Your task to perform on an android device: open app "The Home Depot" (install if not already installed) Image 0: 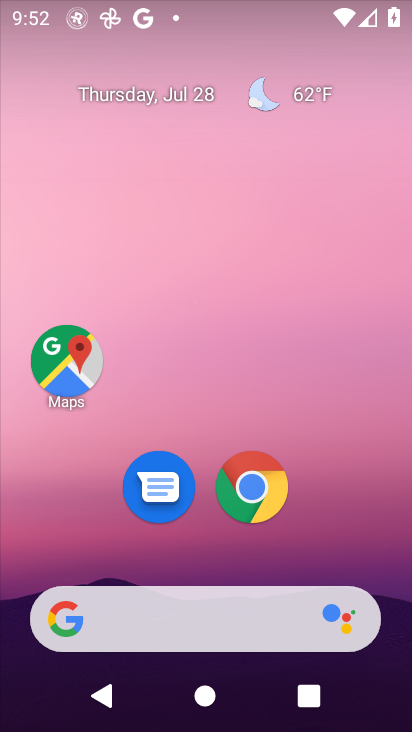
Step 0: press back button
Your task to perform on an android device: open app "The Home Depot" (install if not already installed) Image 1: 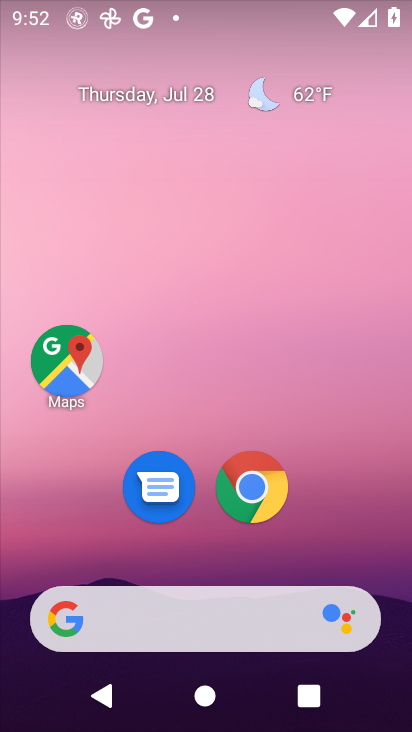
Step 1: press back button
Your task to perform on an android device: open app "The Home Depot" (install if not already installed) Image 2: 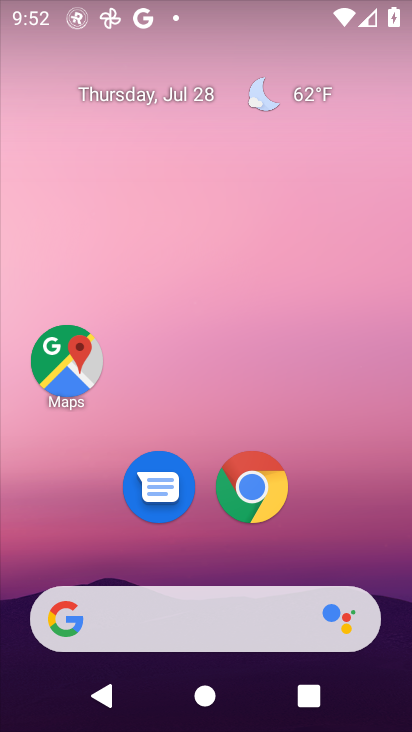
Step 2: drag from (335, 581) to (250, 252)
Your task to perform on an android device: open app "The Home Depot" (install if not already installed) Image 3: 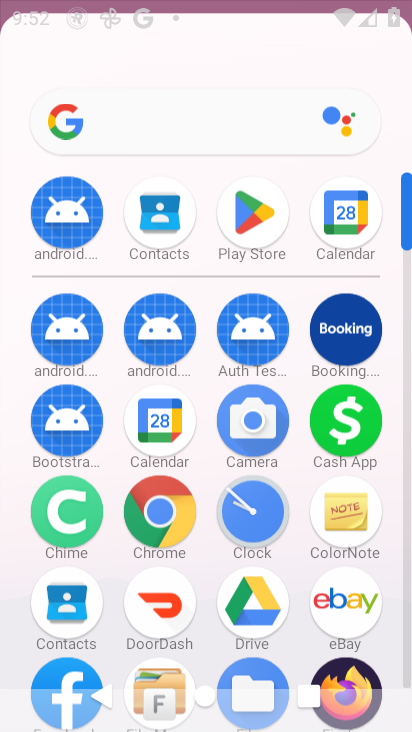
Step 3: drag from (232, 395) to (198, 133)
Your task to perform on an android device: open app "The Home Depot" (install if not already installed) Image 4: 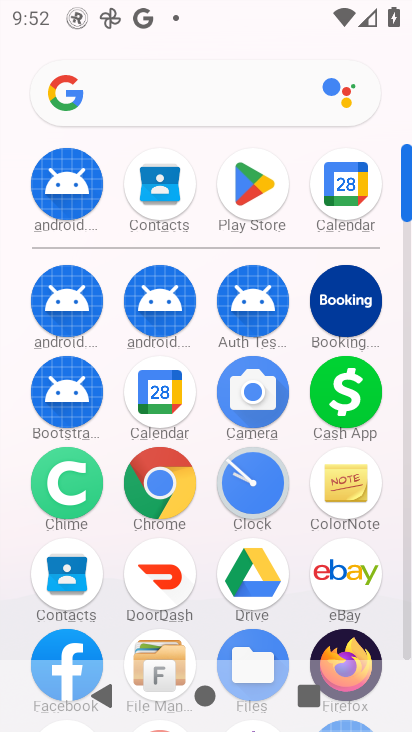
Step 4: click (249, 191)
Your task to perform on an android device: open app "The Home Depot" (install if not already installed) Image 5: 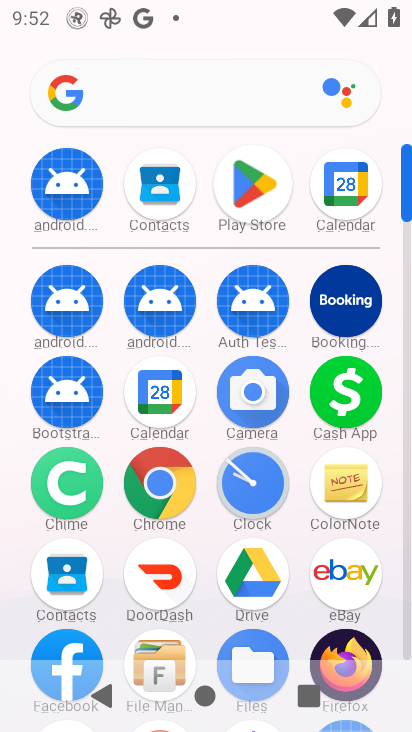
Step 5: click (249, 191)
Your task to perform on an android device: open app "The Home Depot" (install if not already installed) Image 6: 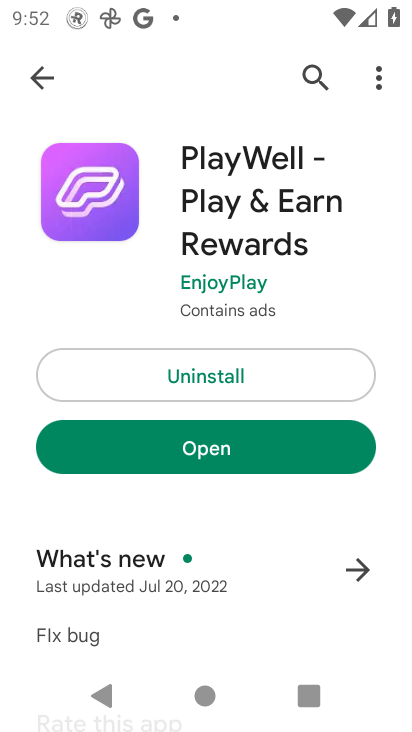
Step 6: click (41, 77)
Your task to perform on an android device: open app "The Home Depot" (install if not already installed) Image 7: 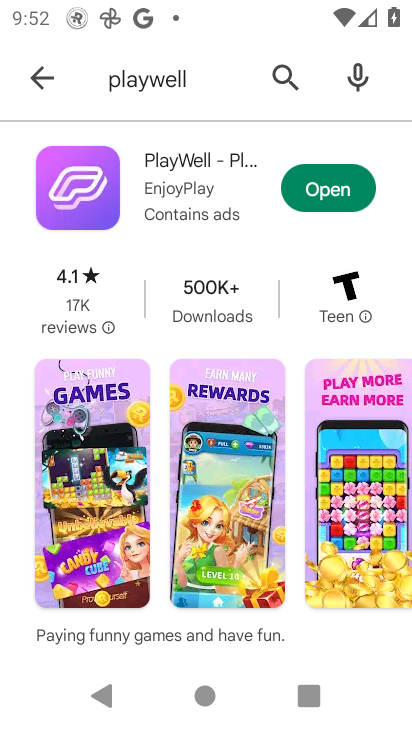
Step 7: click (47, 69)
Your task to perform on an android device: open app "The Home Depot" (install if not already installed) Image 8: 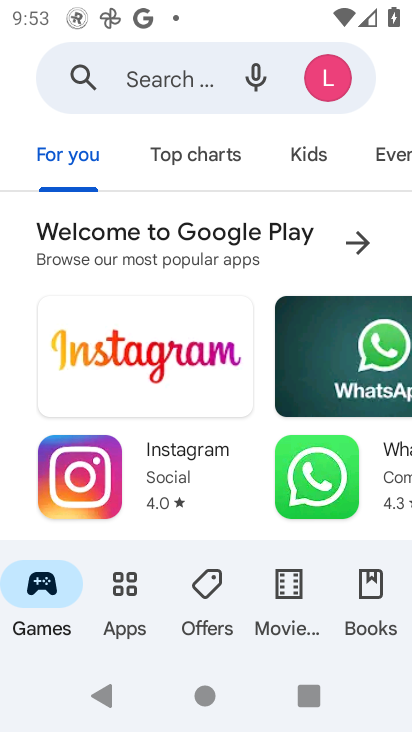
Step 8: click (139, 71)
Your task to perform on an android device: open app "The Home Depot" (install if not already installed) Image 9: 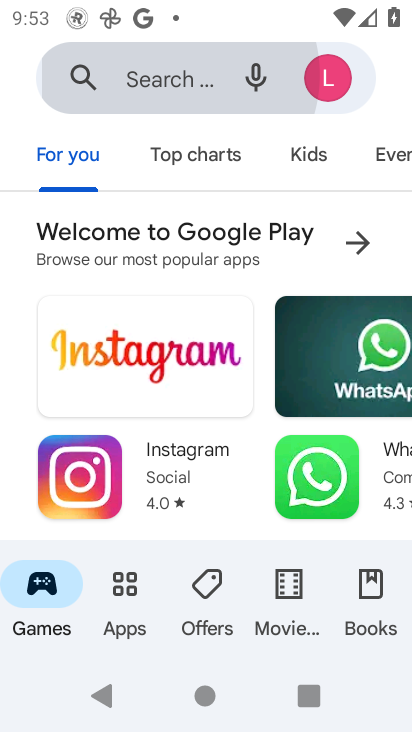
Step 9: click (136, 76)
Your task to perform on an android device: open app "The Home Depot" (install if not already installed) Image 10: 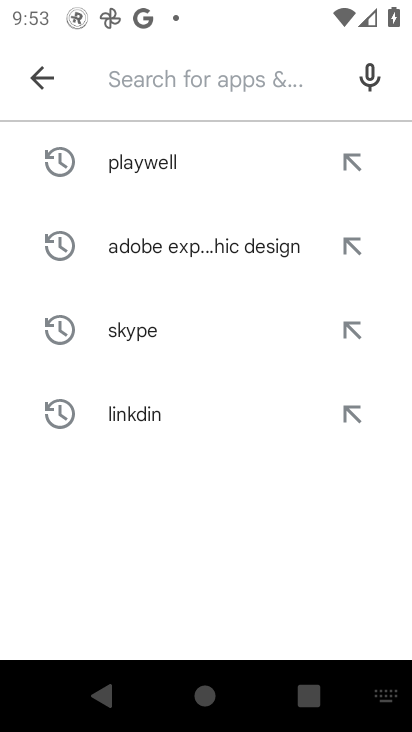
Step 10: type "Open app The Home Depot"
Your task to perform on an android device: open app "The Home Depot" (install if not already installed) Image 11: 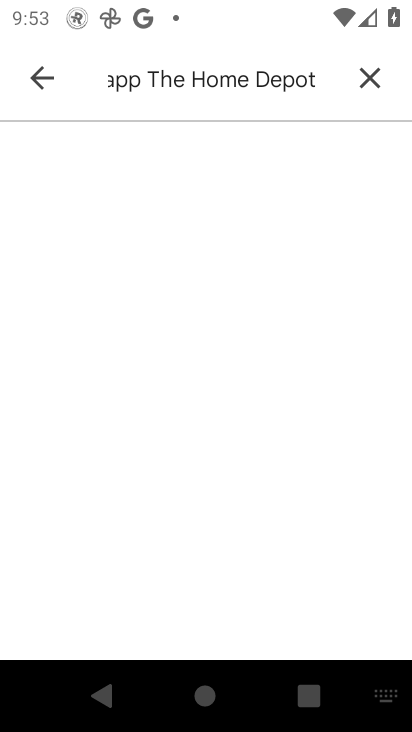
Step 11: click (381, 82)
Your task to perform on an android device: open app "The Home Depot" (install if not already installed) Image 12: 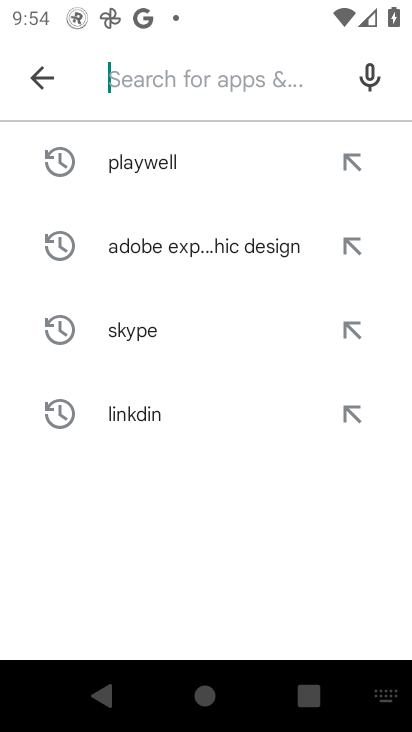
Step 12: type ""The Home Depot""
Your task to perform on an android device: open app "The Home Depot" (install if not already installed) Image 13: 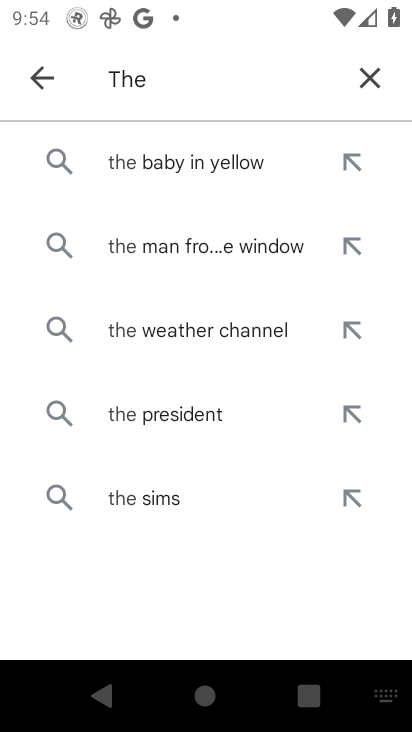
Step 13: type "home depot"
Your task to perform on an android device: open app "The Home Depot" (install if not already installed) Image 14: 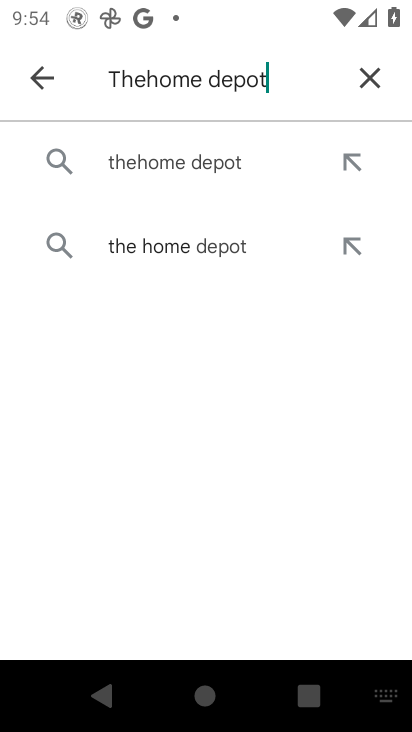
Step 14: click (220, 152)
Your task to perform on an android device: open app "The Home Depot" (install if not already installed) Image 15: 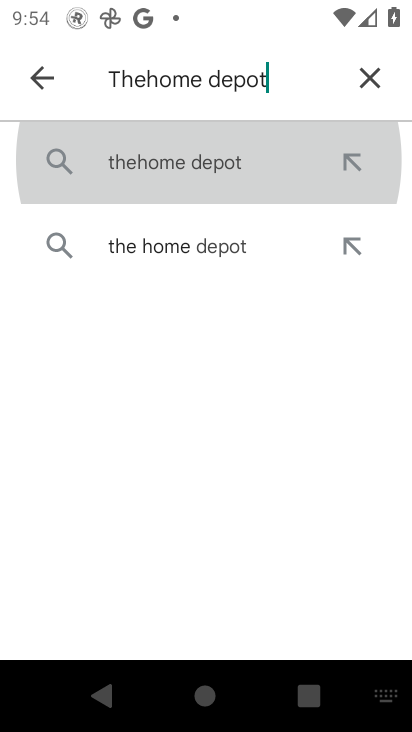
Step 15: click (223, 162)
Your task to perform on an android device: open app "The Home Depot" (install if not already installed) Image 16: 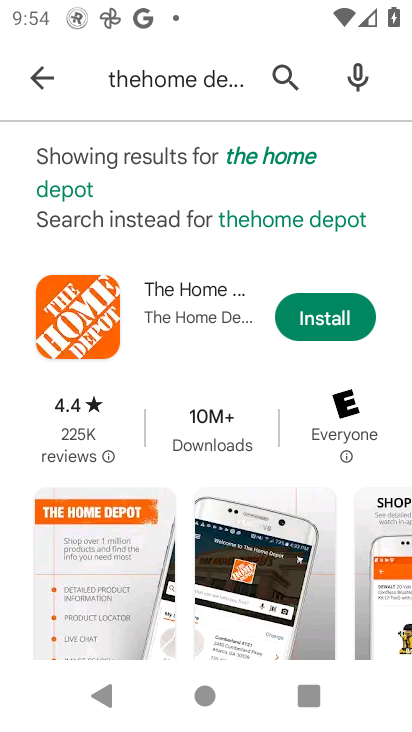
Step 16: click (331, 307)
Your task to perform on an android device: open app "The Home Depot" (install if not already installed) Image 17: 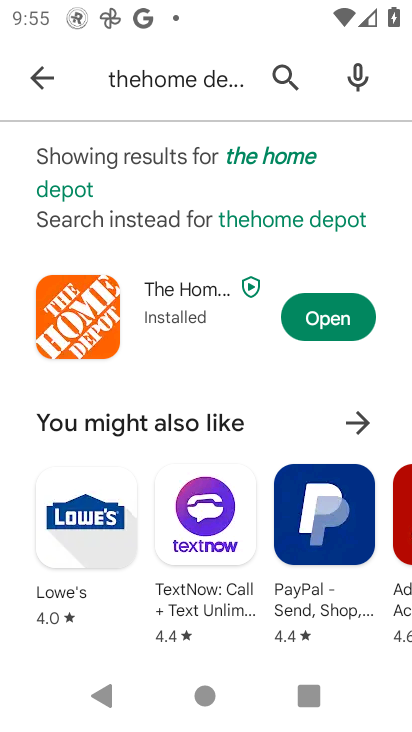
Step 17: click (334, 313)
Your task to perform on an android device: open app "The Home Depot" (install if not already installed) Image 18: 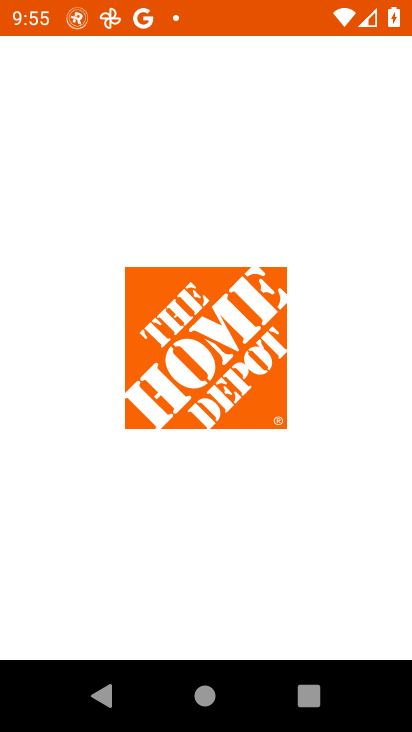
Step 18: task complete